Your task to perform on an android device: Open Google Chrome Image 0: 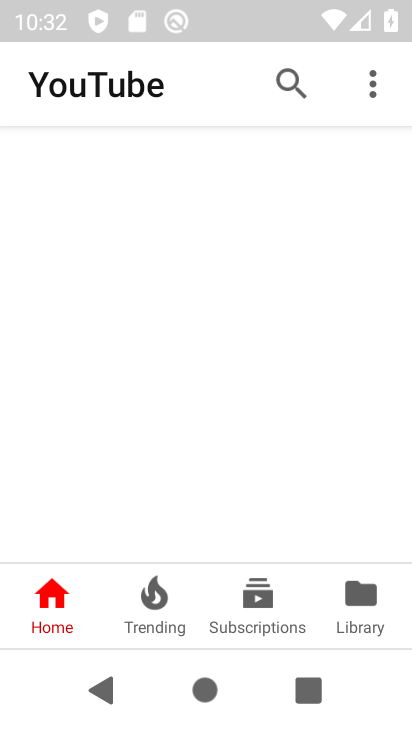
Step 0: drag from (348, 492) to (306, 32)
Your task to perform on an android device: Open Google Chrome Image 1: 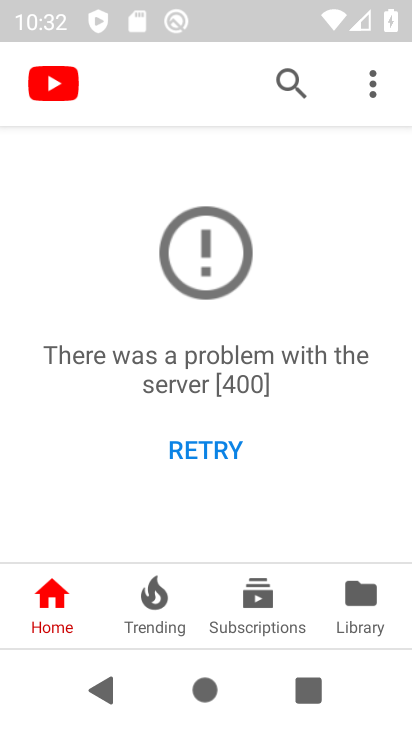
Step 1: press home button
Your task to perform on an android device: Open Google Chrome Image 2: 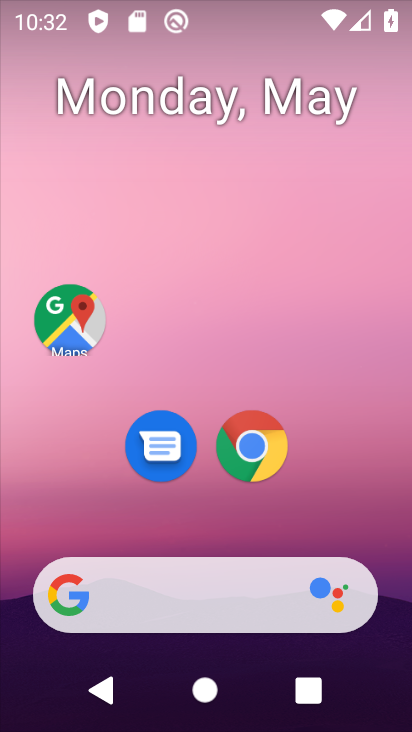
Step 2: click (234, 452)
Your task to perform on an android device: Open Google Chrome Image 3: 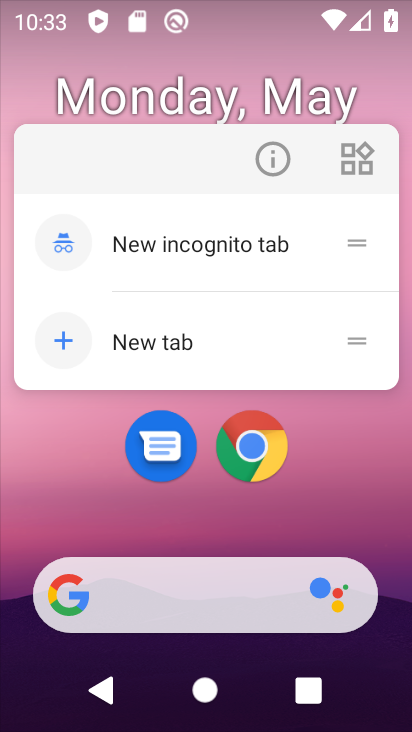
Step 3: drag from (329, 485) to (345, 4)
Your task to perform on an android device: Open Google Chrome Image 4: 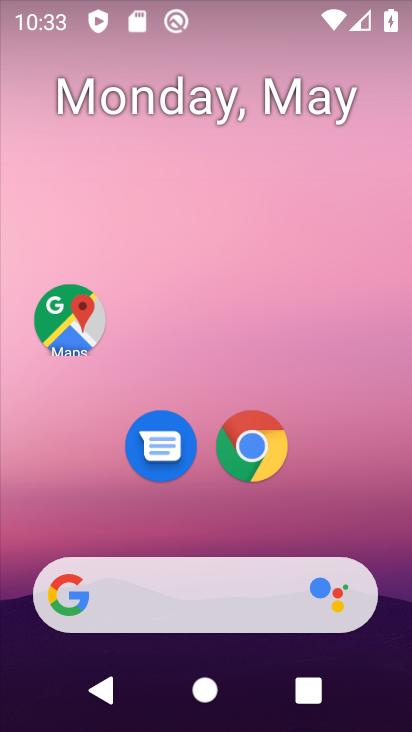
Step 4: drag from (326, 484) to (345, 11)
Your task to perform on an android device: Open Google Chrome Image 5: 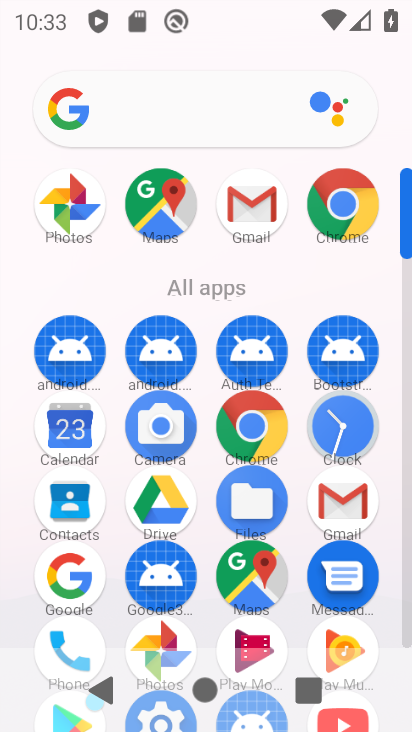
Step 5: click (84, 580)
Your task to perform on an android device: Open Google Chrome Image 6: 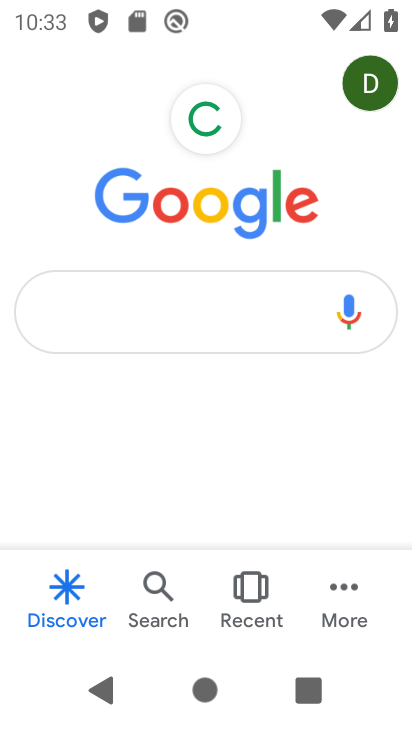
Step 6: task complete